Your task to perform on an android device: Open the Play Movies app and select the watchlist tab. Image 0: 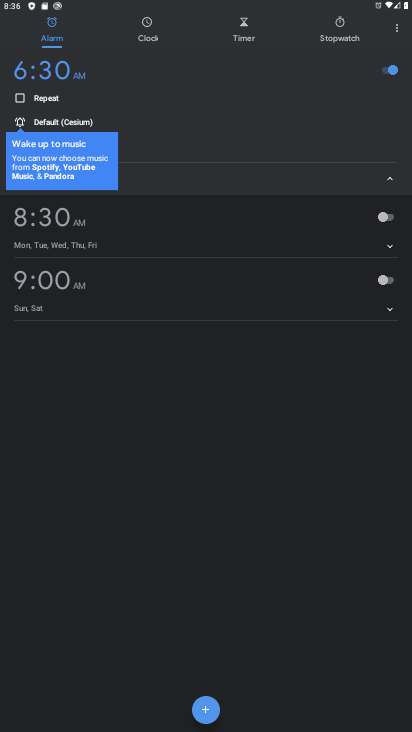
Step 0: press home button
Your task to perform on an android device: Open the Play Movies app and select the watchlist tab. Image 1: 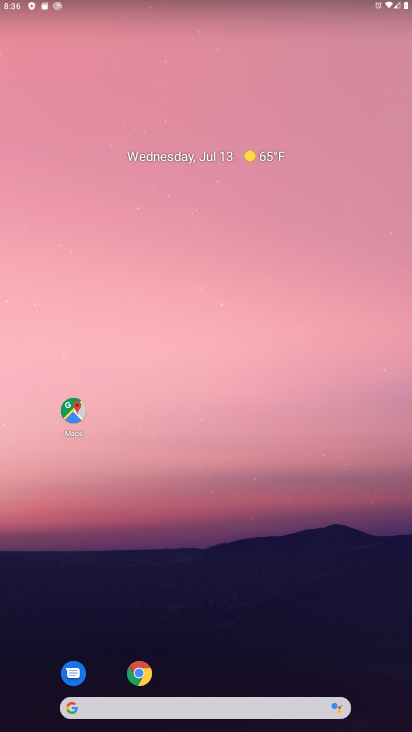
Step 1: drag from (253, 706) to (294, 286)
Your task to perform on an android device: Open the Play Movies app and select the watchlist tab. Image 2: 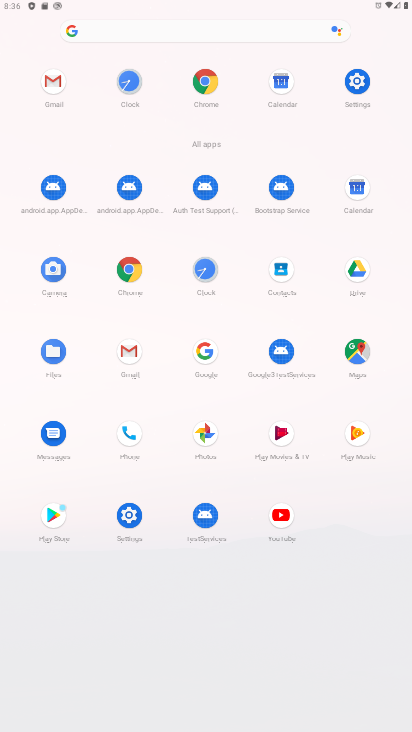
Step 2: click (281, 434)
Your task to perform on an android device: Open the Play Movies app and select the watchlist tab. Image 3: 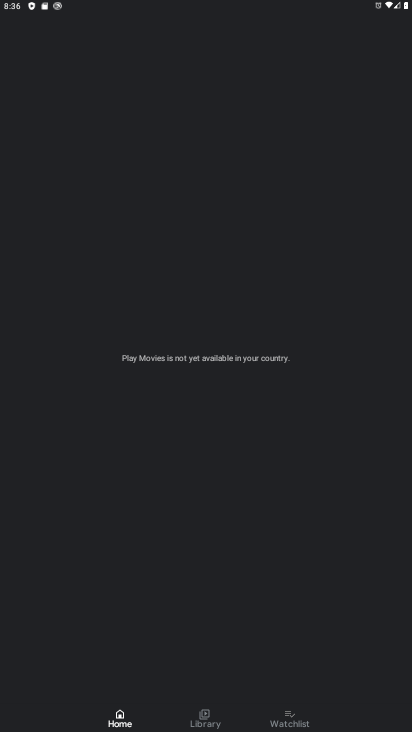
Step 3: click (292, 717)
Your task to perform on an android device: Open the Play Movies app and select the watchlist tab. Image 4: 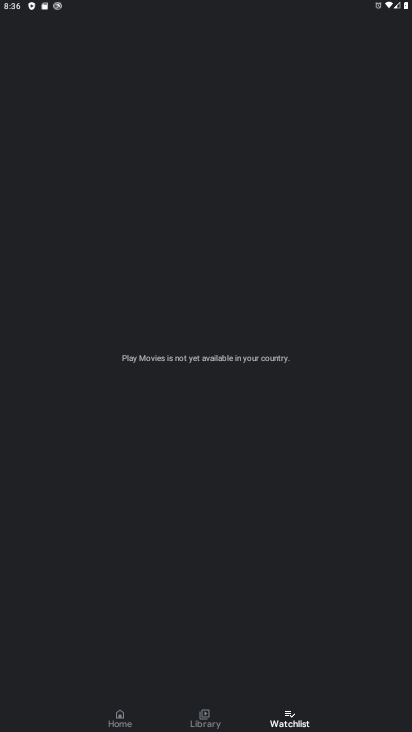
Step 4: task complete